Your task to perform on an android device: open a bookmark in the chrome app Image 0: 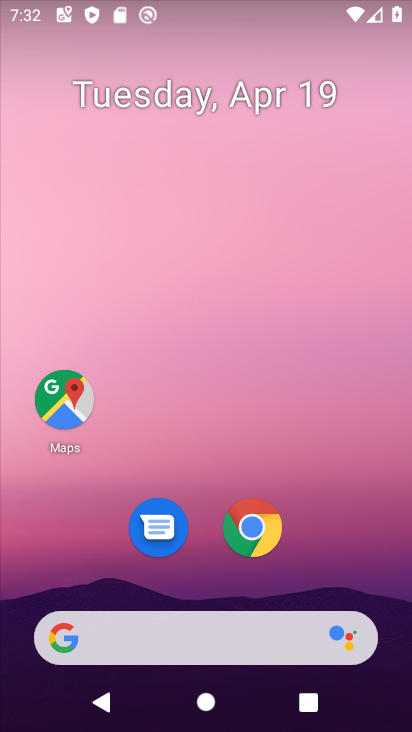
Step 0: drag from (380, 532) to (312, 147)
Your task to perform on an android device: open a bookmark in the chrome app Image 1: 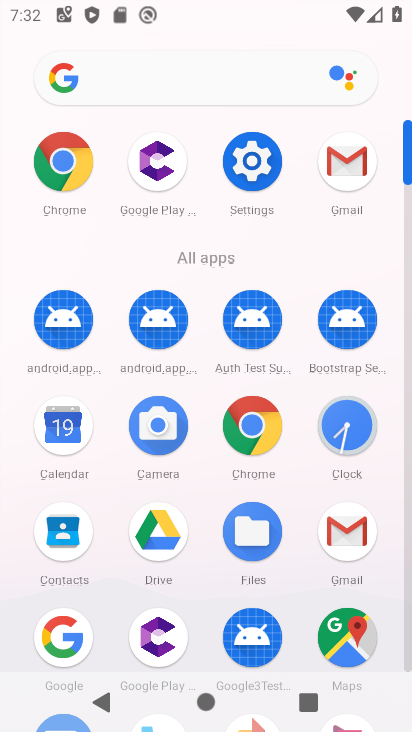
Step 1: click (37, 179)
Your task to perform on an android device: open a bookmark in the chrome app Image 2: 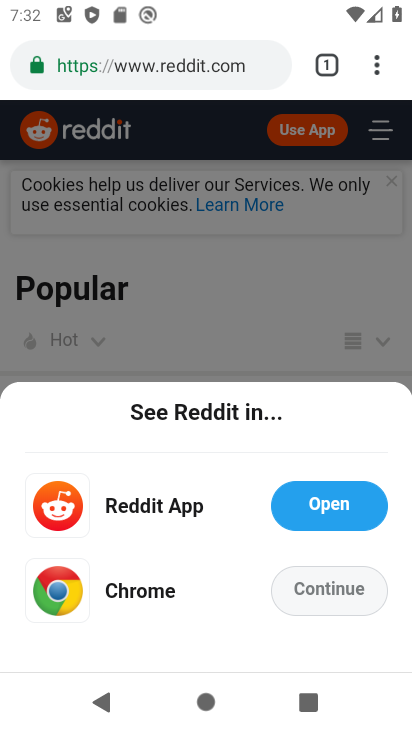
Step 2: click (371, 67)
Your task to perform on an android device: open a bookmark in the chrome app Image 3: 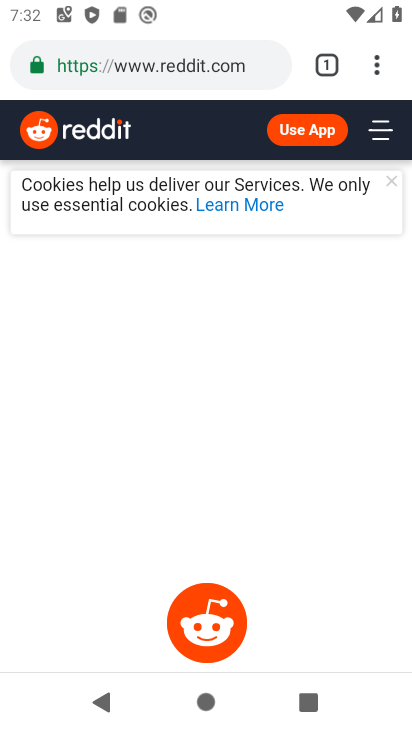
Step 3: click (375, 78)
Your task to perform on an android device: open a bookmark in the chrome app Image 4: 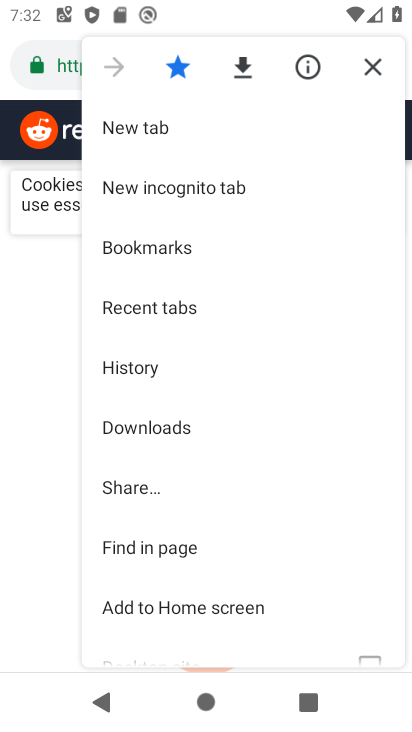
Step 4: click (171, 240)
Your task to perform on an android device: open a bookmark in the chrome app Image 5: 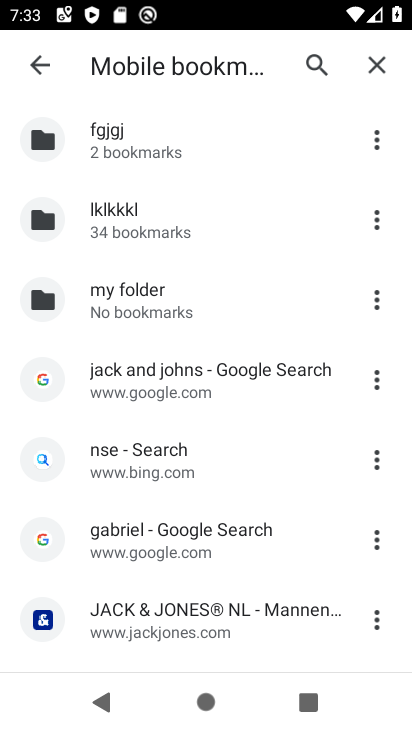
Step 5: task complete